Your task to perform on an android device: turn on translation in the chrome app Image 0: 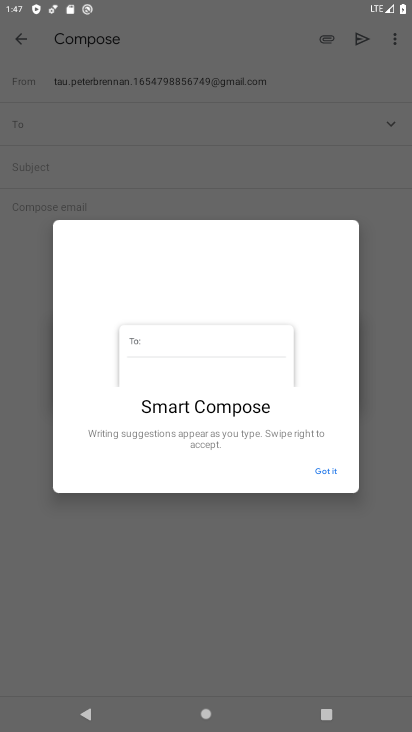
Step 0: press home button
Your task to perform on an android device: turn on translation in the chrome app Image 1: 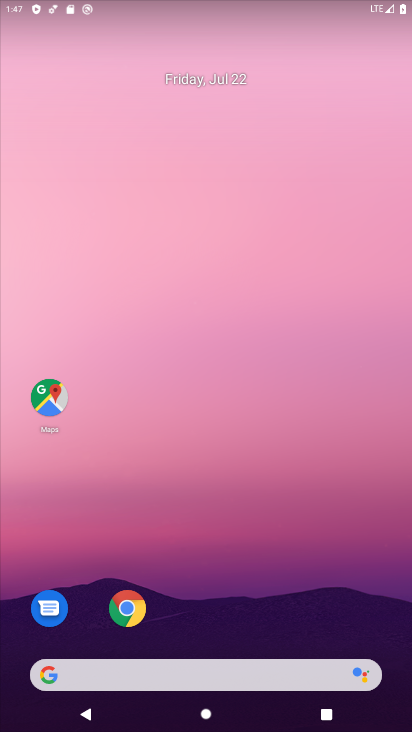
Step 1: click (128, 608)
Your task to perform on an android device: turn on translation in the chrome app Image 2: 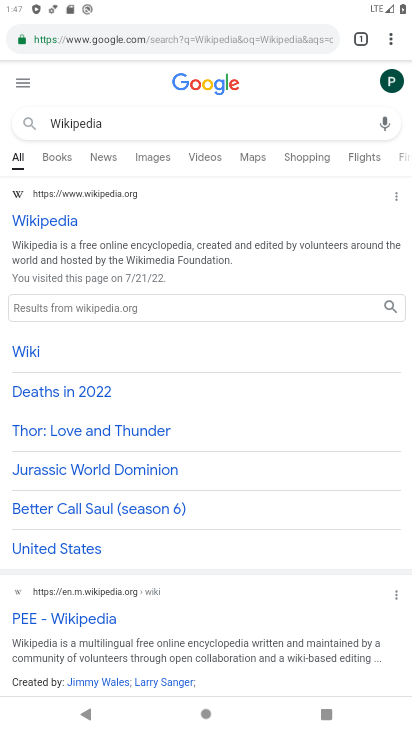
Step 2: click (307, 35)
Your task to perform on an android device: turn on translation in the chrome app Image 3: 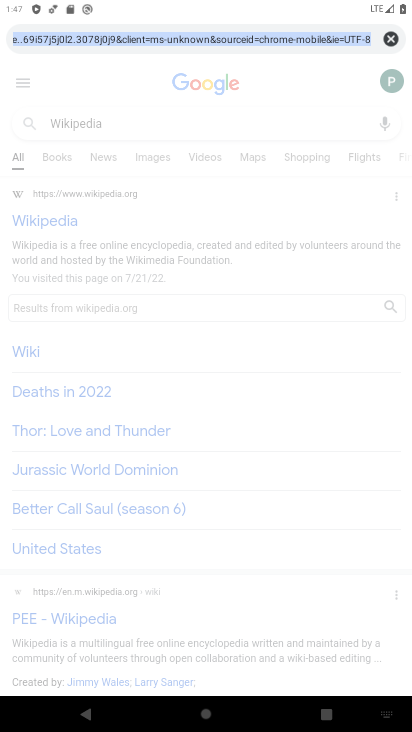
Step 3: click (362, 34)
Your task to perform on an android device: turn on translation in the chrome app Image 4: 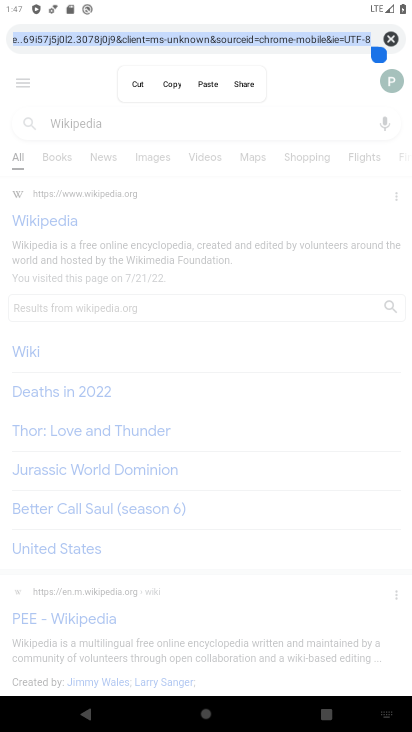
Step 4: click (390, 40)
Your task to perform on an android device: turn on translation in the chrome app Image 5: 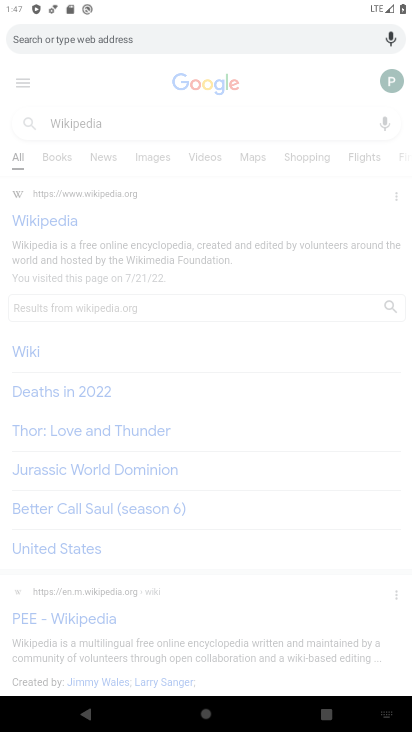
Step 5: press home button
Your task to perform on an android device: turn on translation in the chrome app Image 6: 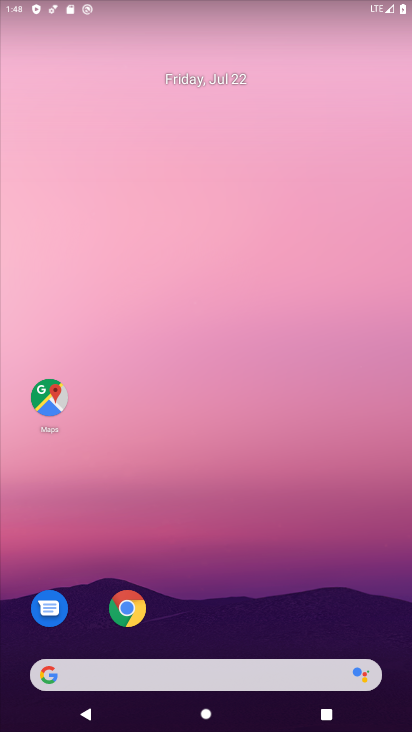
Step 6: click (129, 604)
Your task to perform on an android device: turn on translation in the chrome app Image 7: 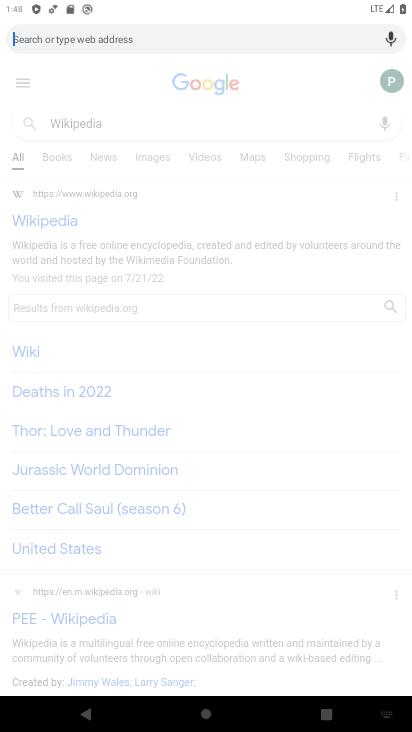
Step 7: press back button
Your task to perform on an android device: turn on translation in the chrome app Image 8: 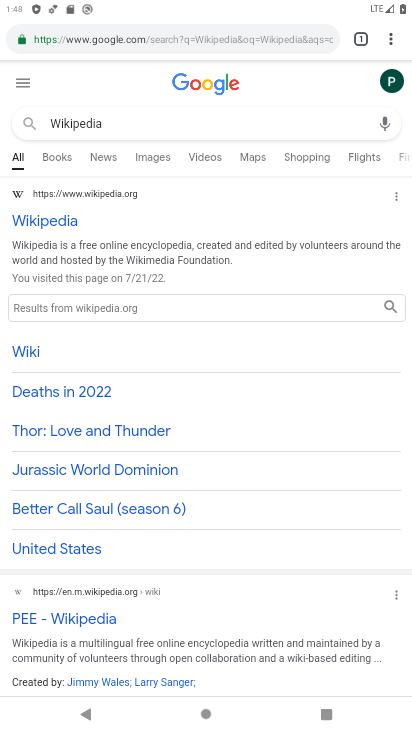
Step 8: click (391, 36)
Your task to perform on an android device: turn on translation in the chrome app Image 9: 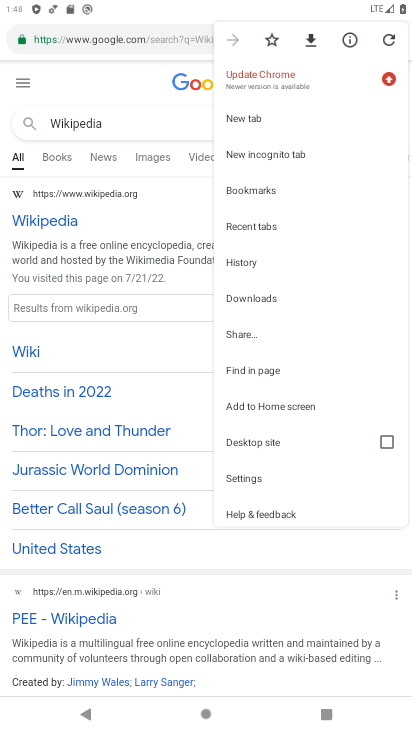
Step 9: click (246, 472)
Your task to perform on an android device: turn on translation in the chrome app Image 10: 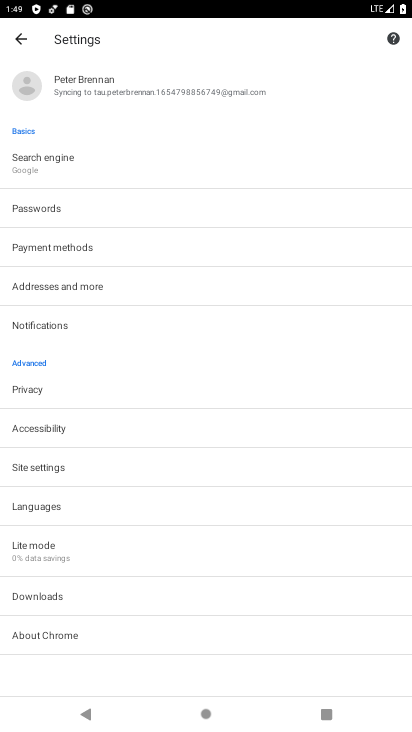
Step 10: click (64, 514)
Your task to perform on an android device: turn on translation in the chrome app Image 11: 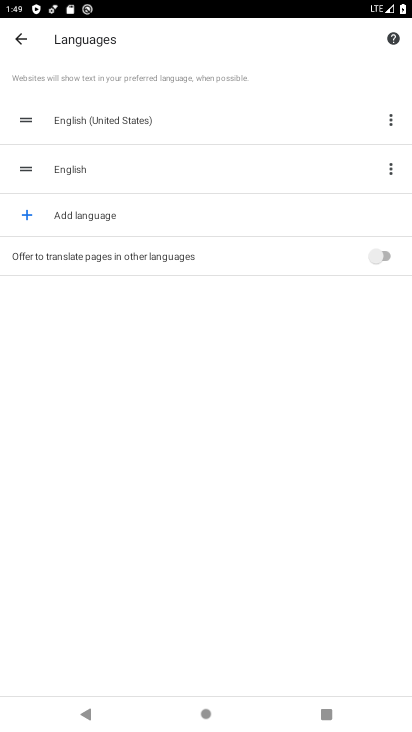
Step 11: click (379, 253)
Your task to perform on an android device: turn on translation in the chrome app Image 12: 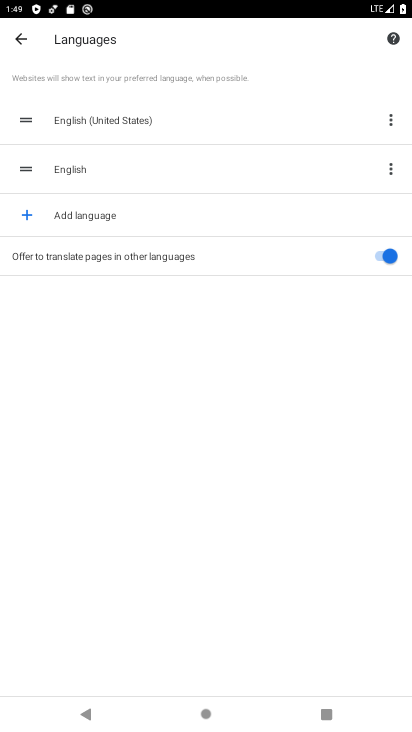
Step 12: task complete